Your task to perform on an android device: toggle sleep mode Image 0: 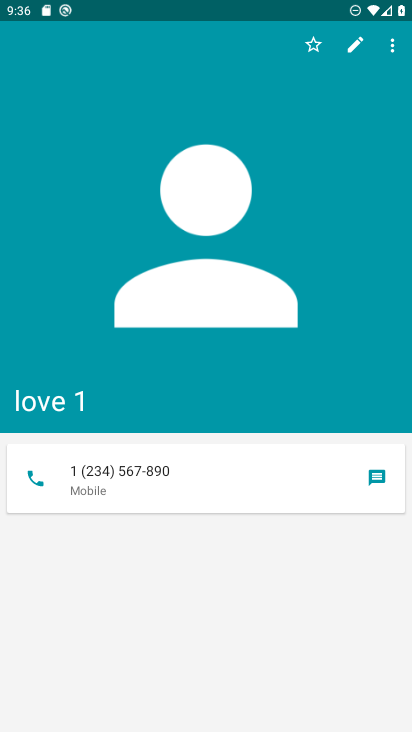
Step 0: press home button
Your task to perform on an android device: toggle sleep mode Image 1: 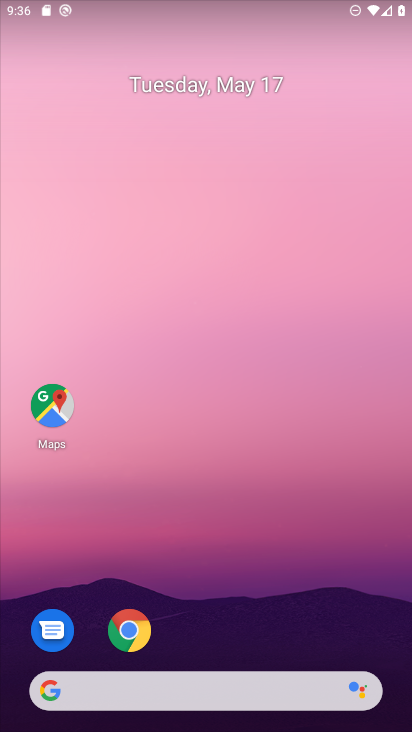
Step 1: drag from (338, 596) to (348, 157)
Your task to perform on an android device: toggle sleep mode Image 2: 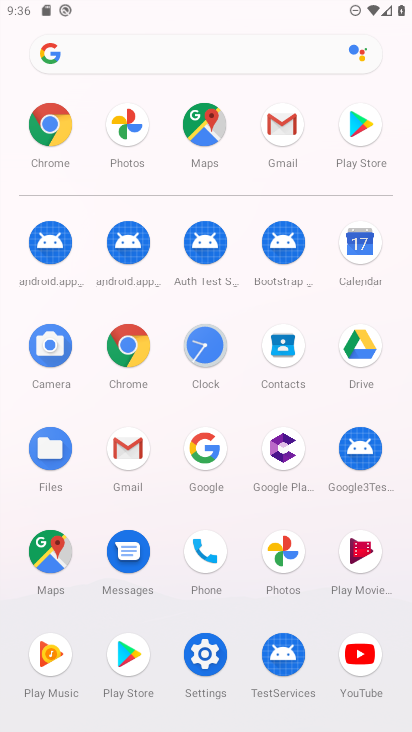
Step 2: click (201, 669)
Your task to perform on an android device: toggle sleep mode Image 3: 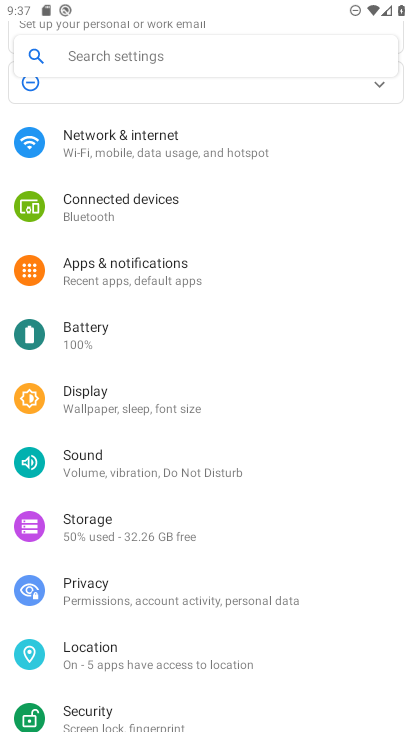
Step 3: drag from (349, 572) to (355, 358)
Your task to perform on an android device: toggle sleep mode Image 4: 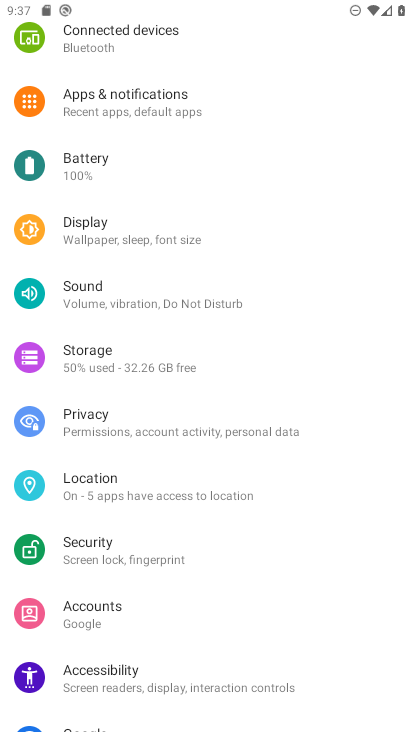
Step 4: drag from (349, 616) to (345, 434)
Your task to perform on an android device: toggle sleep mode Image 5: 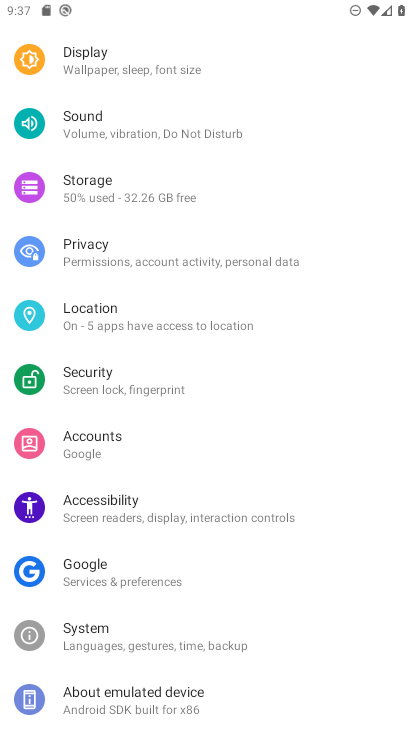
Step 5: drag from (335, 631) to (351, 436)
Your task to perform on an android device: toggle sleep mode Image 6: 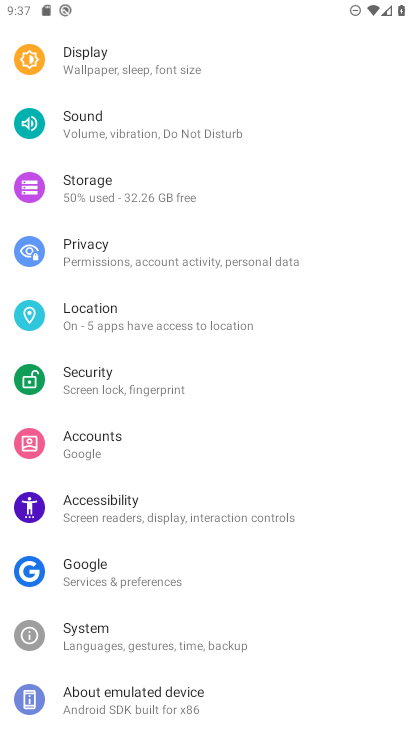
Step 6: drag from (342, 292) to (330, 453)
Your task to perform on an android device: toggle sleep mode Image 7: 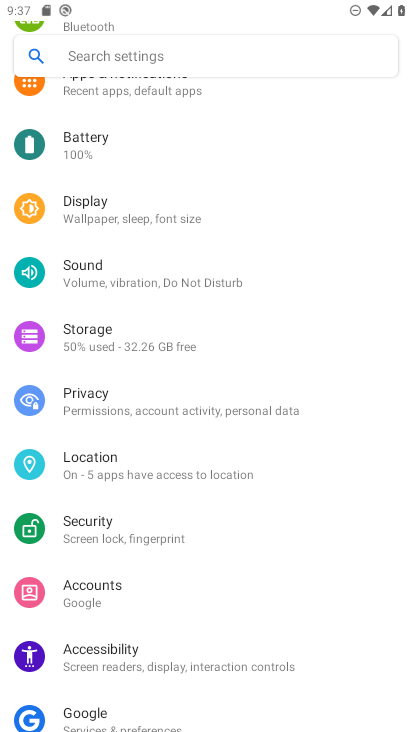
Step 7: drag from (340, 271) to (319, 491)
Your task to perform on an android device: toggle sleep mode Image 8: 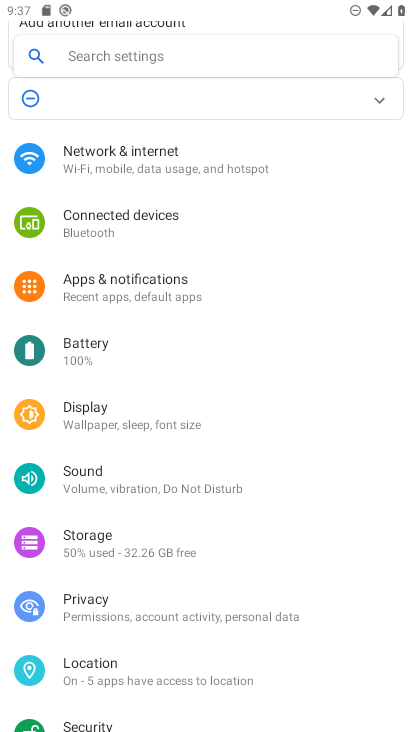
Step 8: drag from (315, 277) to (298, 445)
Your task to perform on an android device: toggle sleep mode Image 9: 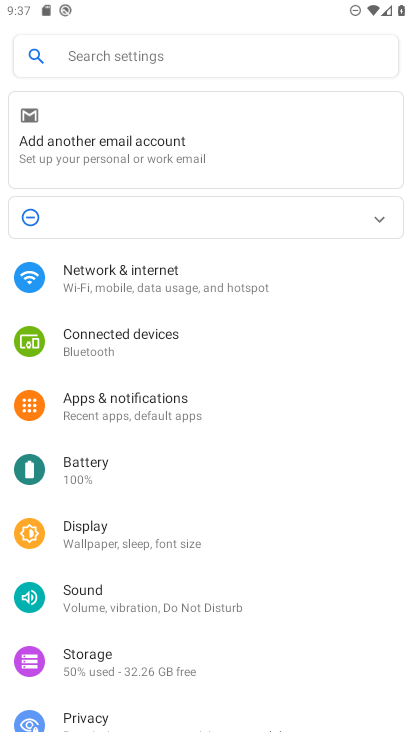
Step 9: drag from (316, 297) to (298, 454)
Your task to perform on an android device: toggle sleep mode Image 10: 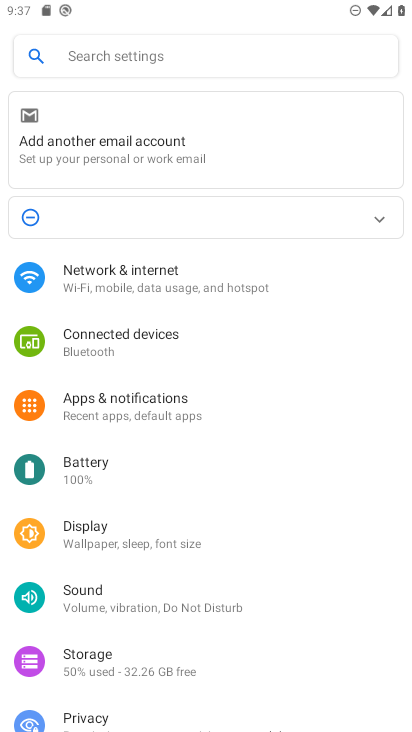
Step 10: click (162, 552)
Your task to perform on an android device: toggle sleep mode Image 11: 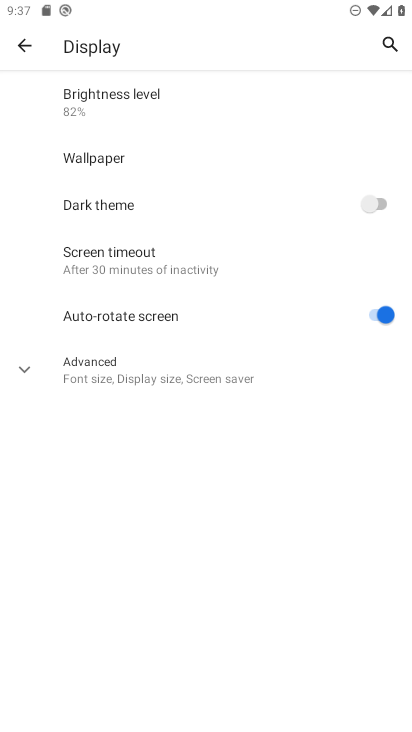
Step 11: click (197, 381)
Your task to perform on an android device: toggle sleep mode Image 12: 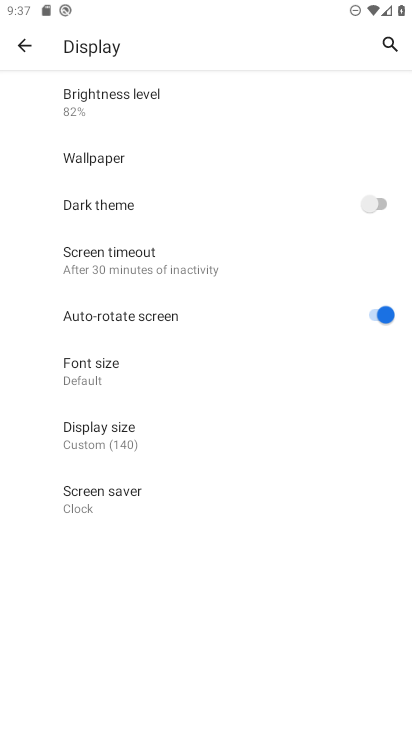
Step 12: task complete